Your task to perform on an android device: Do I have any events tomorrow? Image 0: 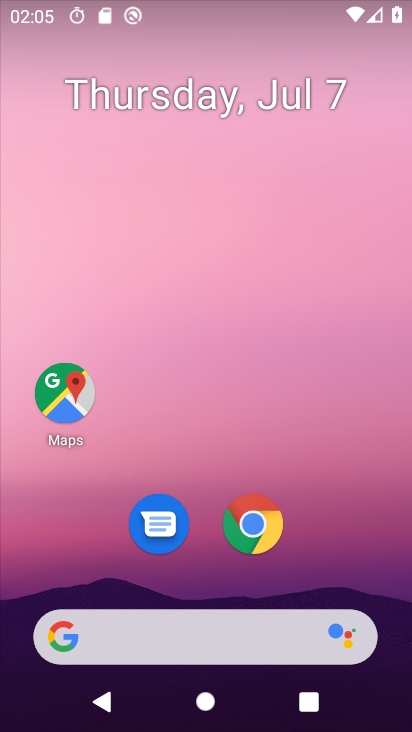
Step 0: drag from (326, 548) to (280, 27)
Your task to perform on an android device: Do I have any events tomorrow? Image 1: 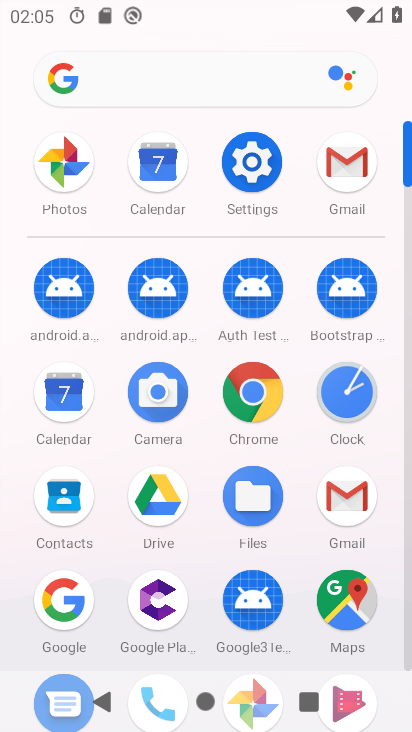
Step 1: click (267, 144)
Your task to perform on an android device: Do I have any events tomorrow? Image 2: 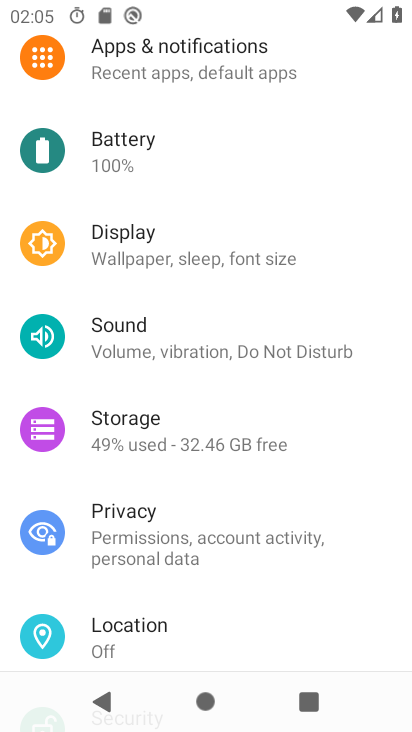
Step 2: click (156, 156)
Your task to perform on an android device: Do I have any events tomorrow? Image 3: 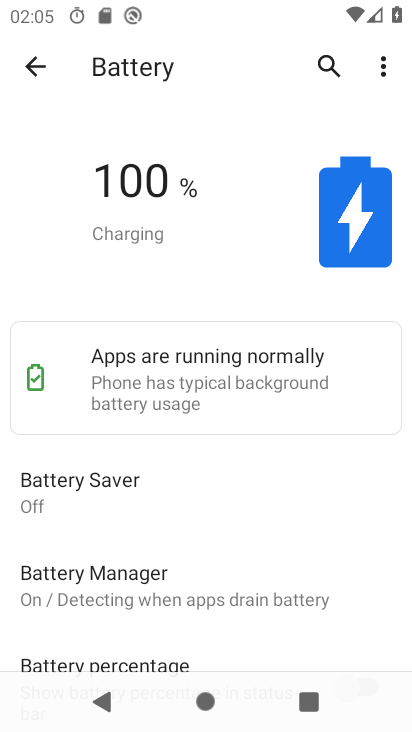
Step 3: task complete